Your task to perform on an android device: Open Yahoo.com Image 0: 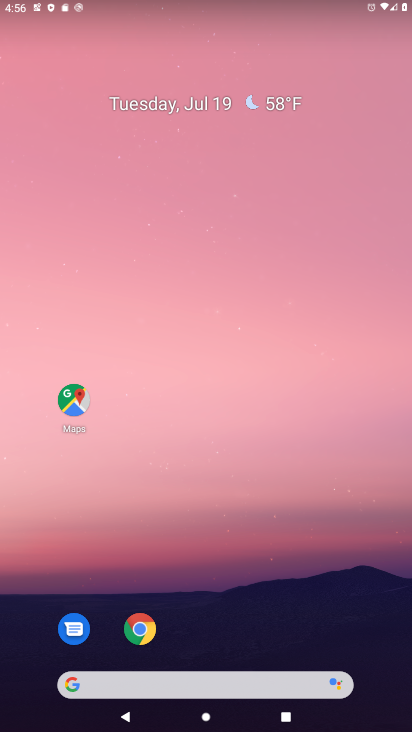
Step 0: drag from (206, 596) to (149, 73)
Your task to perform on an android device: Open Yahoo.com Image 1: 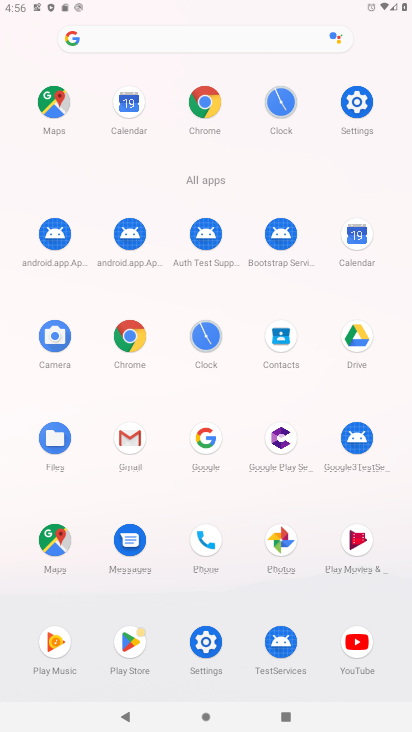
Step 1: drag from (200, 414) to (227, 48)
Your task to perform on an android device: Open Yahoo.com Image 2: 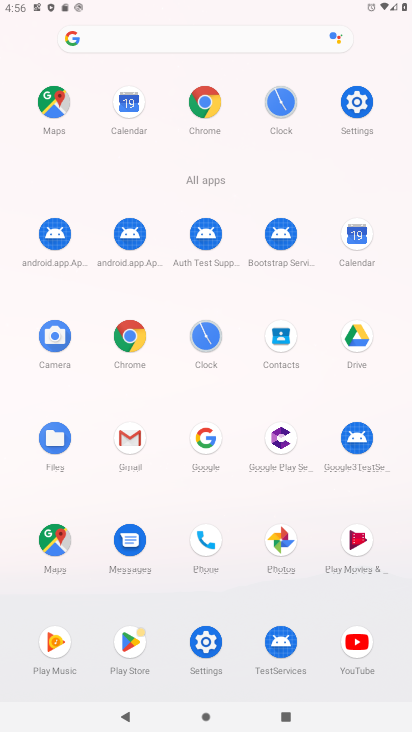
Step 2: click (357, 103)
Your task to perform on an android device: Open Yahoo.com Image 3: 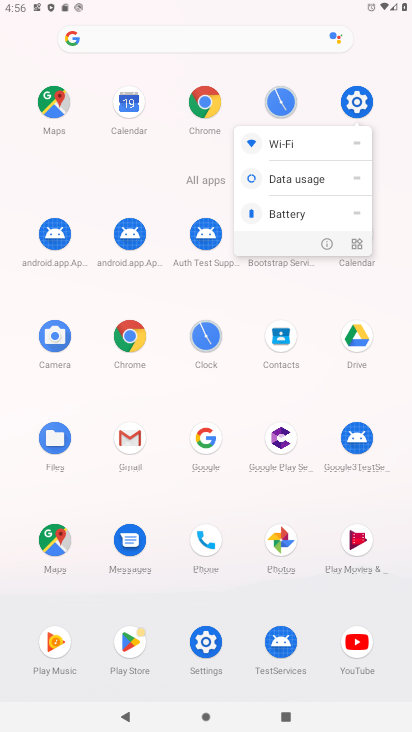
Step 3: click (342, 97)
Your task to perform on an android device: Open Yahoo.com Image 4: 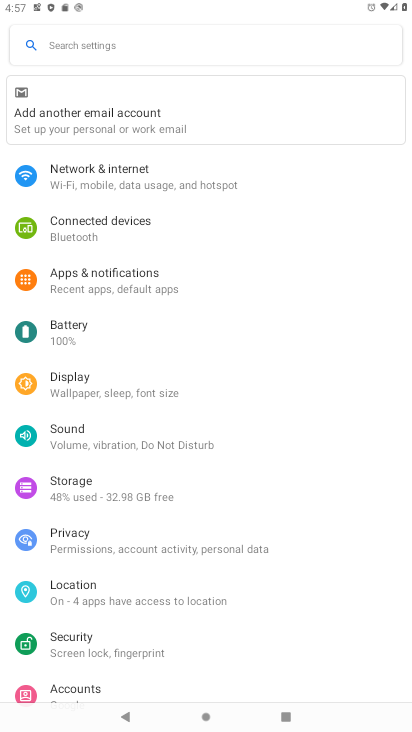
Step 4: press back button
Your task to perform on an android device: Open Yahoo.com Image 5: 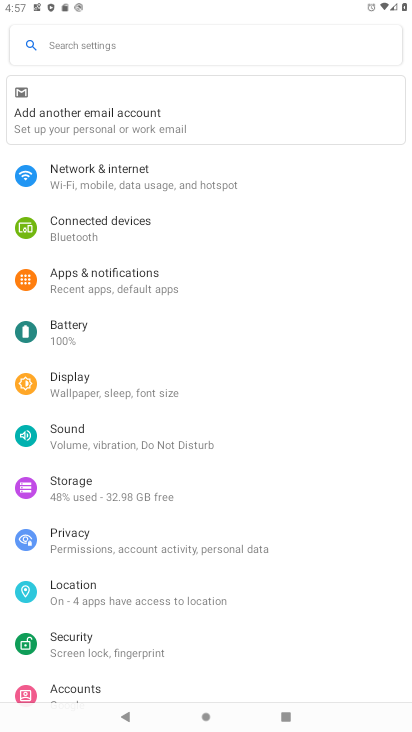
Step 5: press back button
Your task to perform on an android device: Open Yahoo.com Image 6: 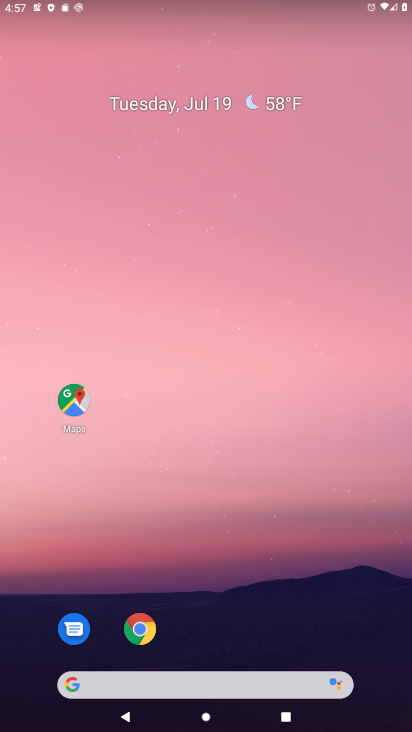
Step 6: drag from (269, 566) to (200, 68)
Your task to perform on an android device: Open Yahoo.com Image 7: 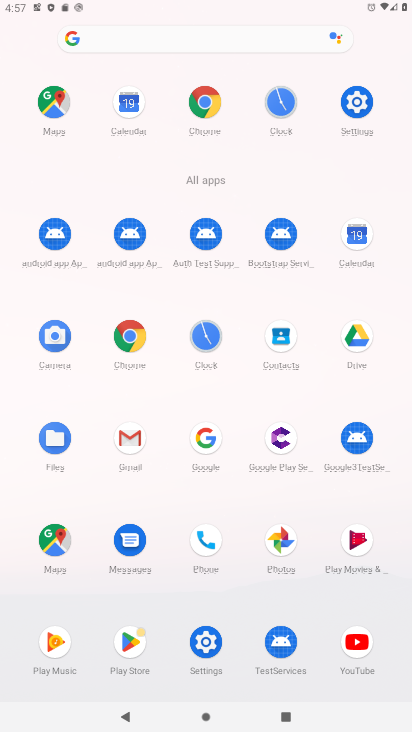
Step 7: click (208, 94)
Your task to perform on an android device: Open Yahoo.com Image 8: 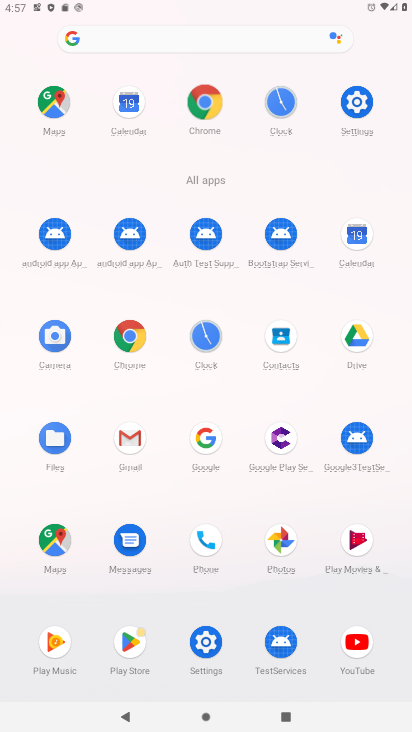
Step 8: click (209, 101)
Your task to perform on an android device: Open Yahoo.com Image 9: 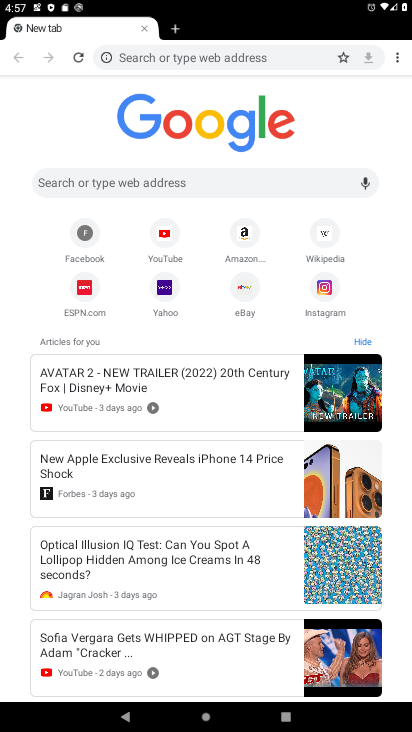
Step 9: click (160, 294)
Your task to perform on an android device: Open Yahoo.com Image 10: 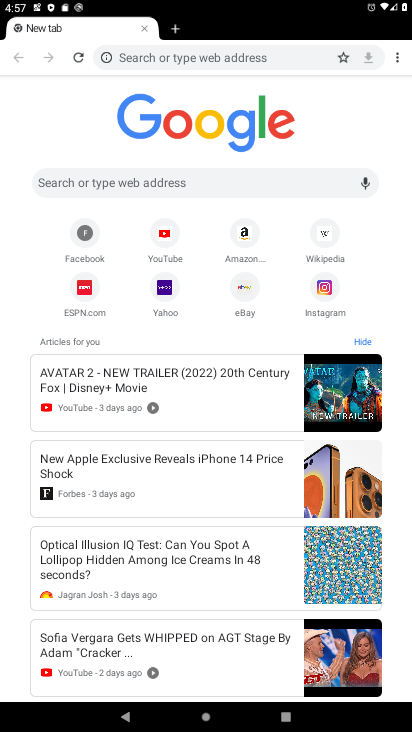
Step 10: click (160, 294)
Your task to perform on an android device: Open Yahoo.com Image 11: 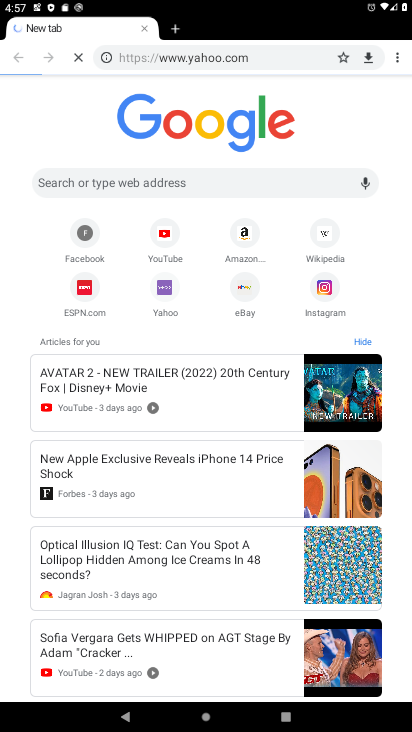
Step 11: click (161, 294)
Your task to perform on an android device: Open Yahoo.com Image 12: 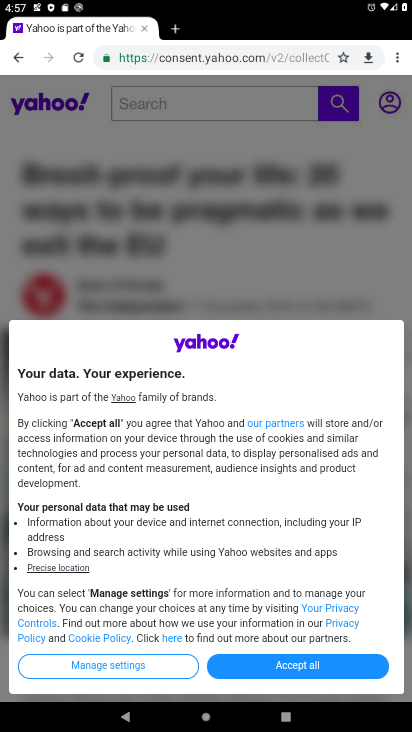
Step 12: task complete